Your task to perform on an android device: Turn off the flashlight Image 0: 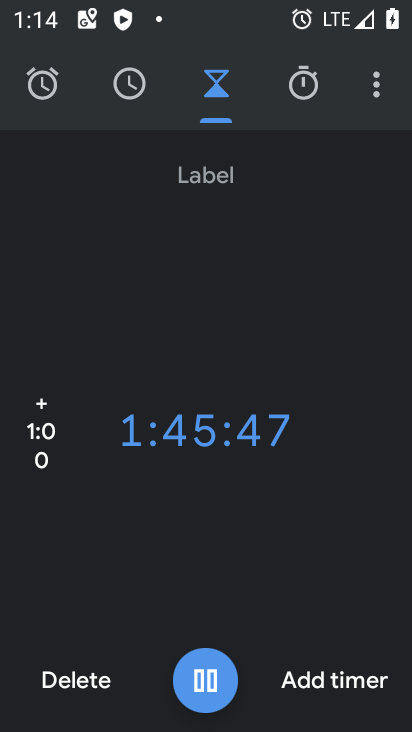
Step 0: press home button
Your task to perform on an android device: Turn off the flashlight Image 1: 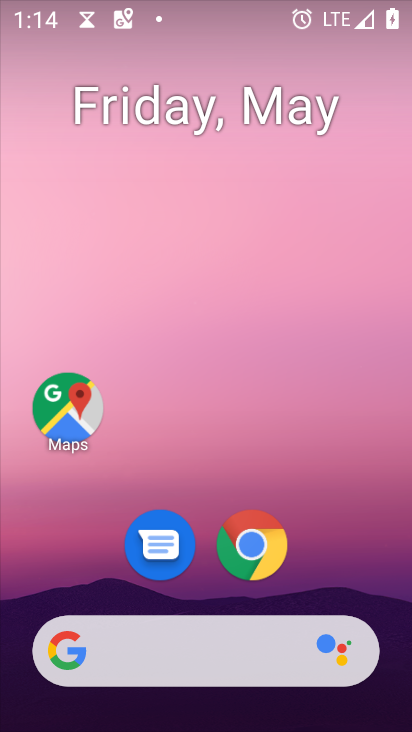
Step 1: drag from (316, 584) to (312, 211)
Your task to perform on an android device: Turn off the flashlight Image 2: 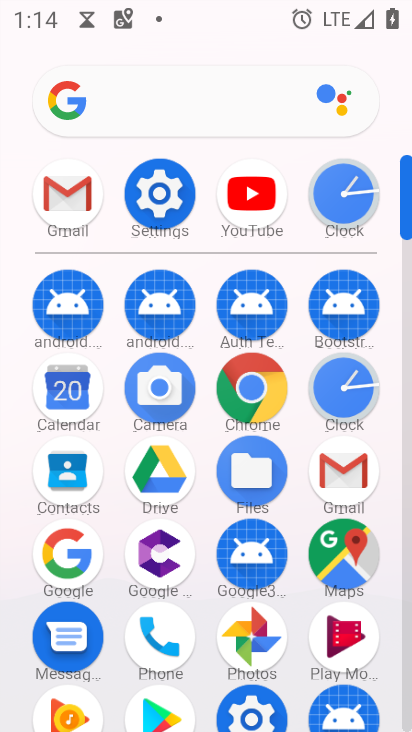
Step 2: click (163, 201)
Your task to perform on an android device: Turn off the flashlight Image 3: 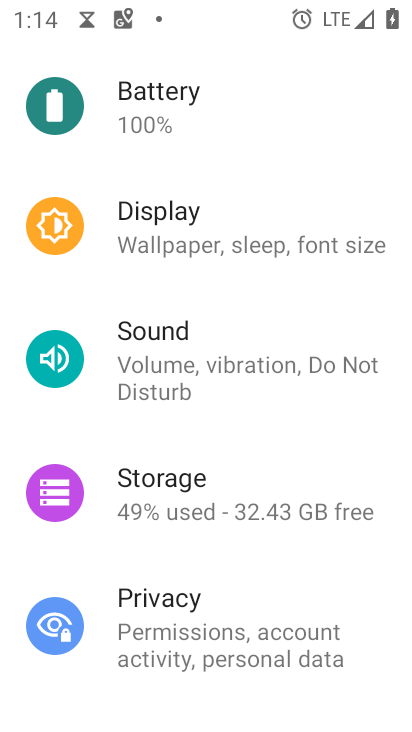
Step 3: drag from (309, 151) to (242, 562)
Your task to perform on an android device: Turn off the flashlight Image 4: 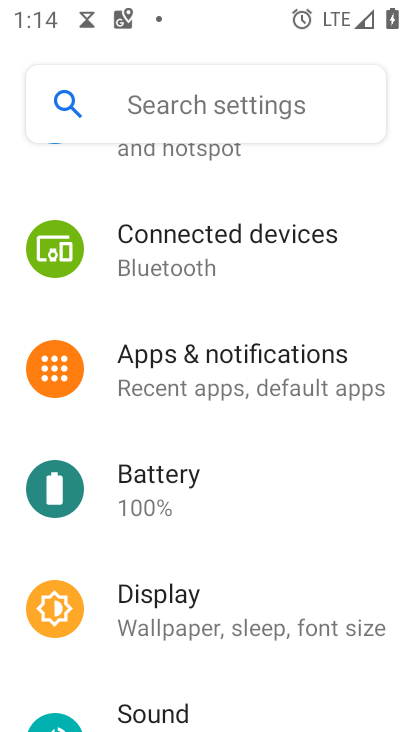
Step 4: click (232, 375)
Your task to perform on an android device: Turn off the flashlight Image 5: 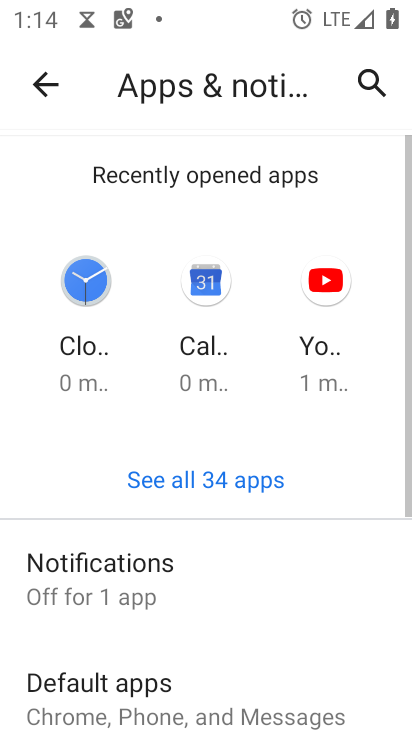
Step 5: drag from (286, 637) to (216, 272)
Your task to perform on an android device: Turn off the flashlight Image 6: 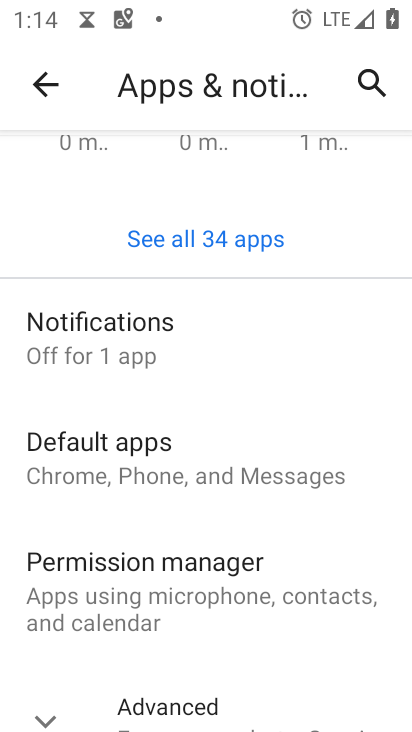
Step 6: drag from (225, 662) to (216, 263)
Your task to perform on an android device: Turn off the flashlight Image 7: 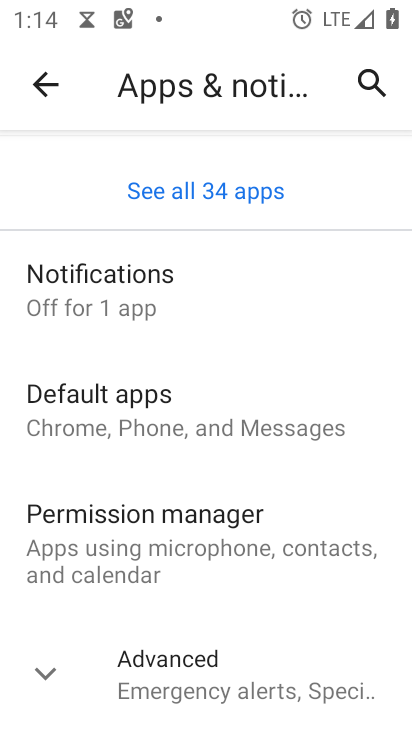
Step 7: click (184, 666)
Your task to perform on an android device: Turn off the flashlight Image 8: 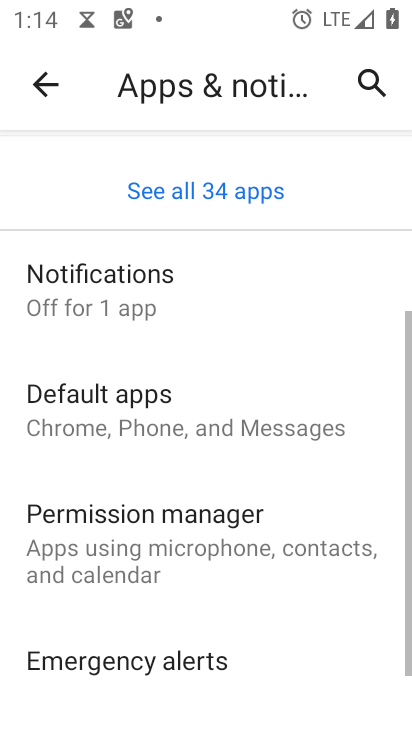
Step 8: drag from (260, 656) to (258, 512)
Your task to perform on an android device: Turn off the flashlight Image 9: 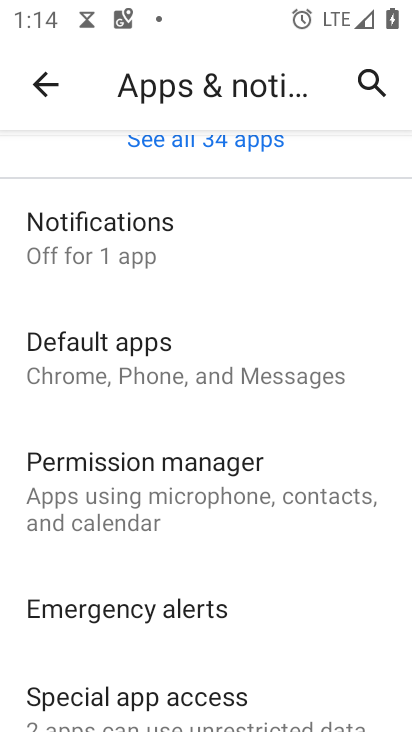
Step 9: drag from (291, 615) to (256, 192)
Your task to perform on an android device: Turn off the flashlight Image 10: 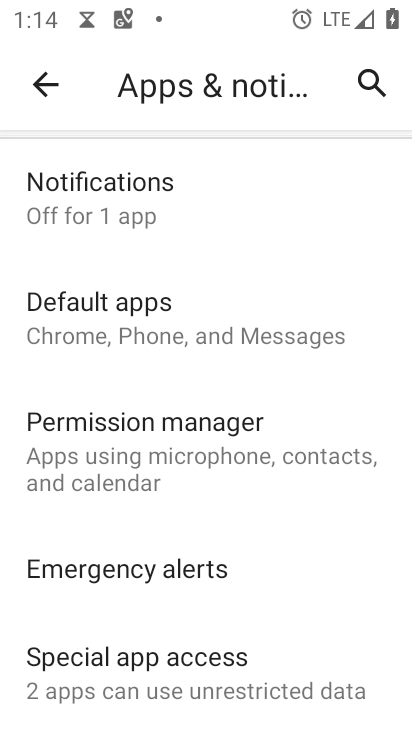
Step 10: click (165, 677)
Your task to perform on an android device: Turn off the flashlight Image 11: 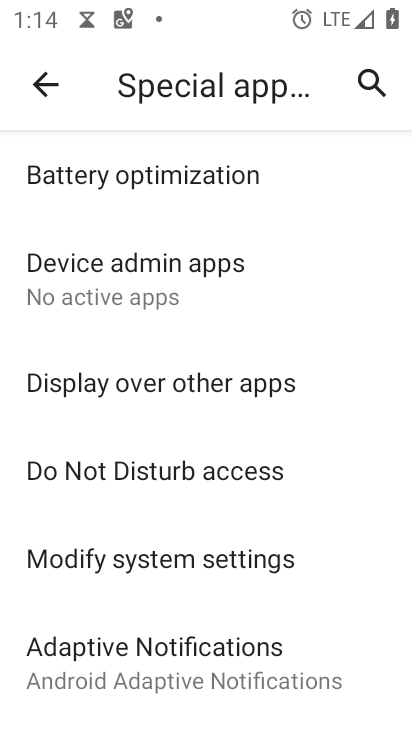
Step 11: task complete